Your task to perform on an android device: Go to Maps Image 0: 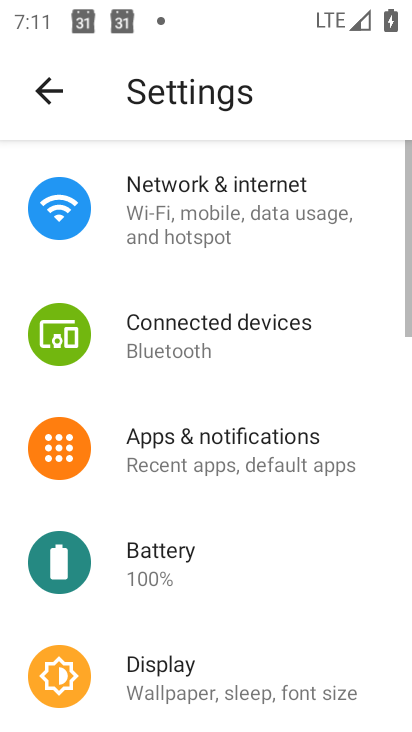
Step 0: press home button
Your task to perform on an android device: Go to Maps Image 1: 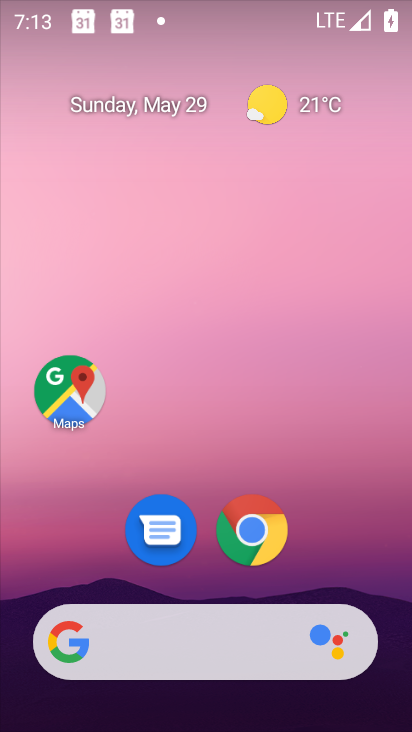
Step 1: drag from (325, 692) to (276, 190)
Your task to perform on an android device: Go to Maps Image 2: 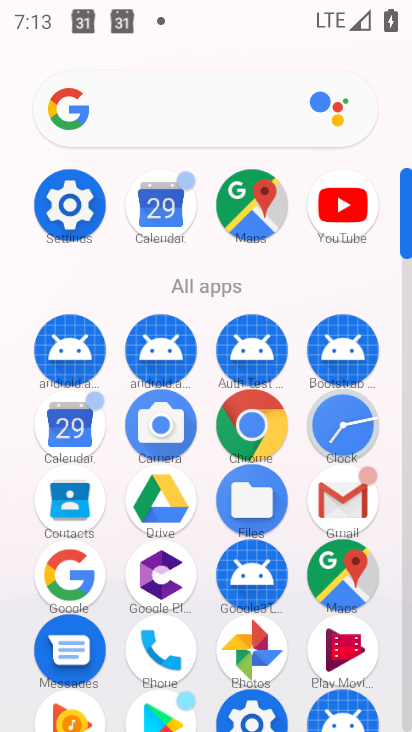
Step 2: click (248, 234)
Your task to perform on an android device: Go to Maps Image 3: 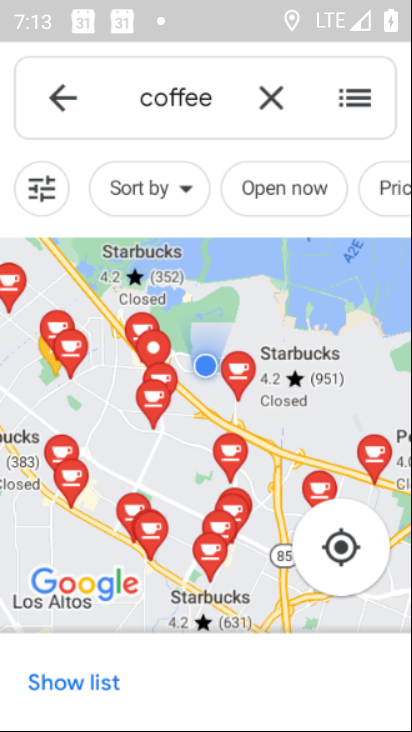
Step 3: task complete